Your task to perform on an android device: What's on my calendar tomorrow? Image 0: 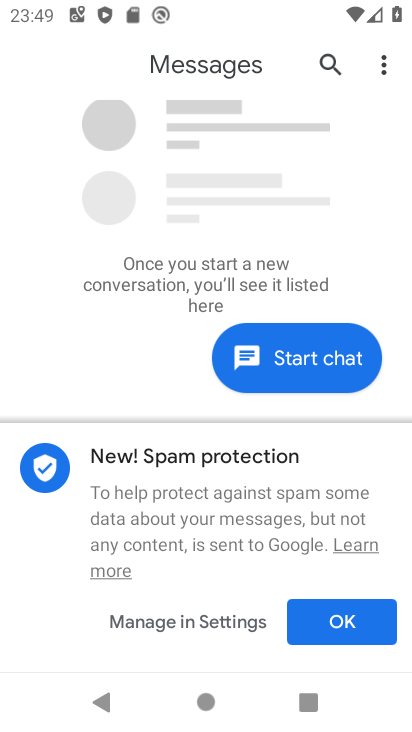
Step 0: click (361, 613)
Your task to perform on an android device: What's on my calendar tomorrow? Image 1: 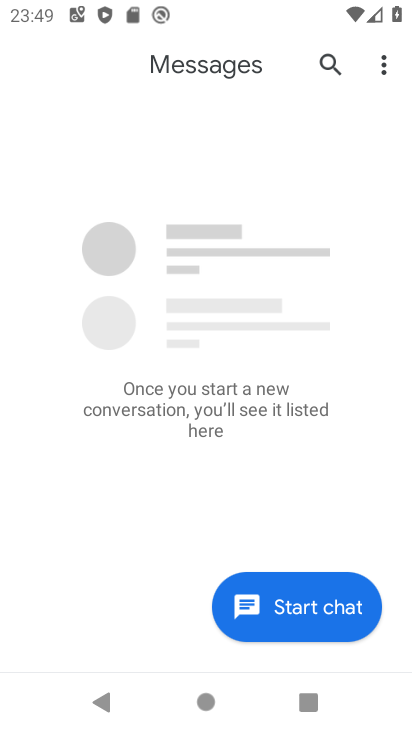
Step 1: press home button
Your task to perform on an android device: What's on my calendar tomorrow? Image 2: 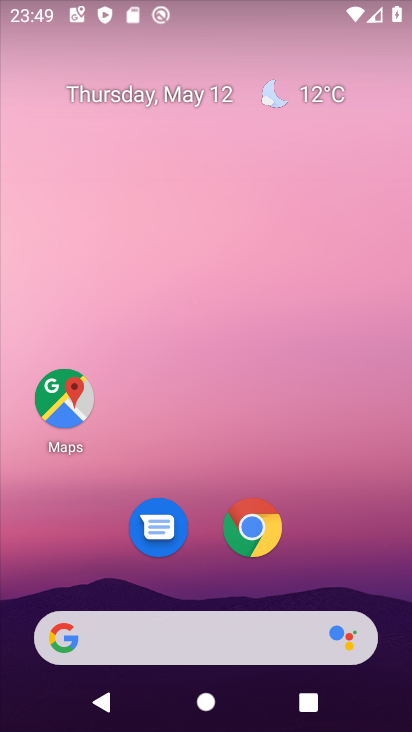
Step 2: drag from (46, 487) to (201, 37)
Your task to perform on an android device: What's on my calendar tomorrow? Image 3: 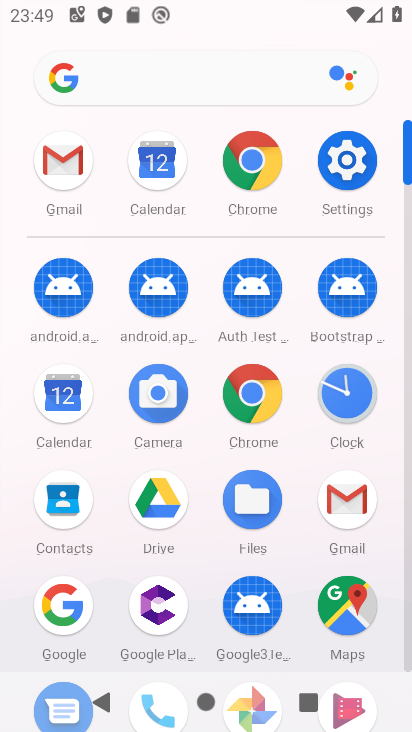
Step 3: click (176, 164)
Your task to perform on an android device: What's on my calendar tomorrow? Image 4: 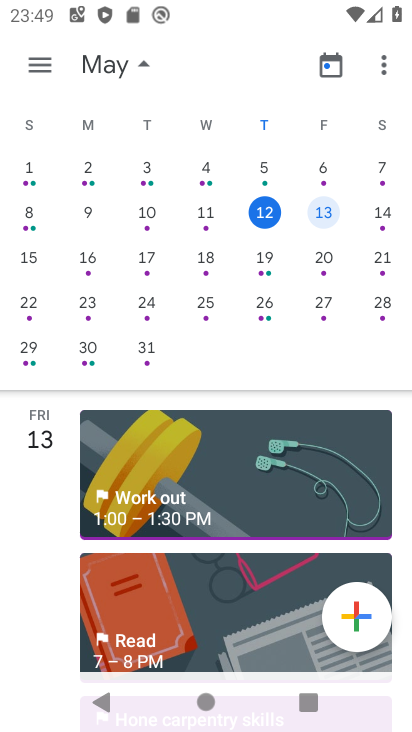
Step 4: click (322, 222)
Your task to perform on an android device: What's on my calendar tomorrow? Image 5: 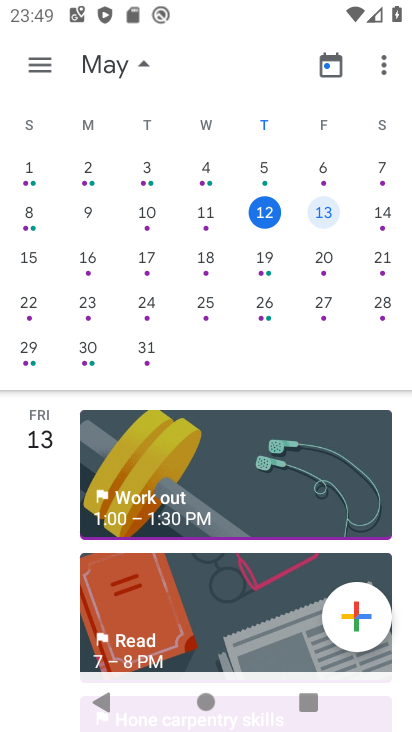
Step 5: task complete